Your task to perform on an android device: Go to location settings Image 0: 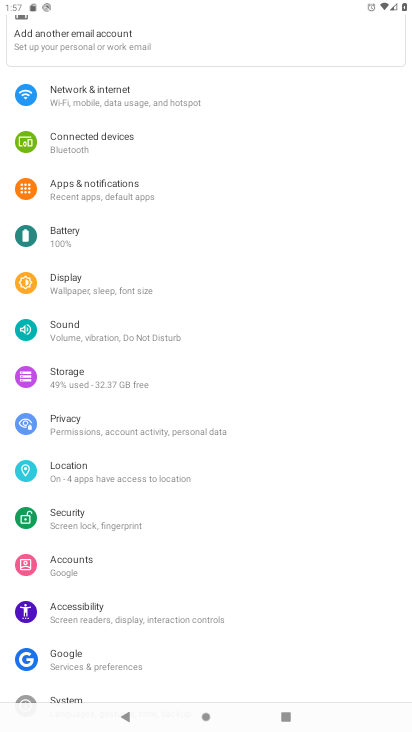
Step 0: click (124, 480)
Your task to perform on an android device: Go to location settings Image 1: 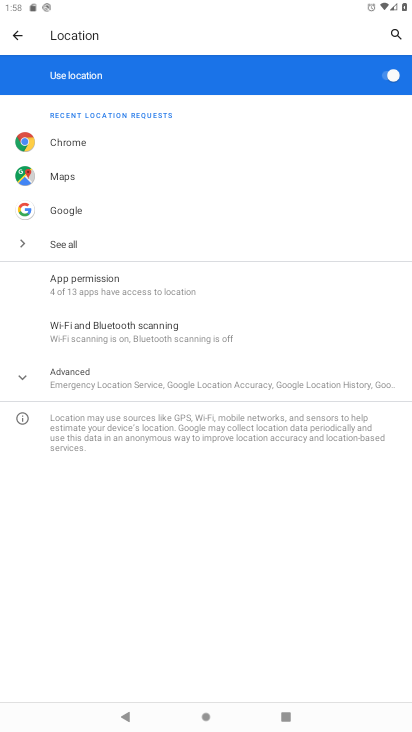
Step 1: task complete